Your task to perform on an android device: Clear the shopping cart on ebay.com. Add logitech g pro to the cart on ebay.com Image 0: 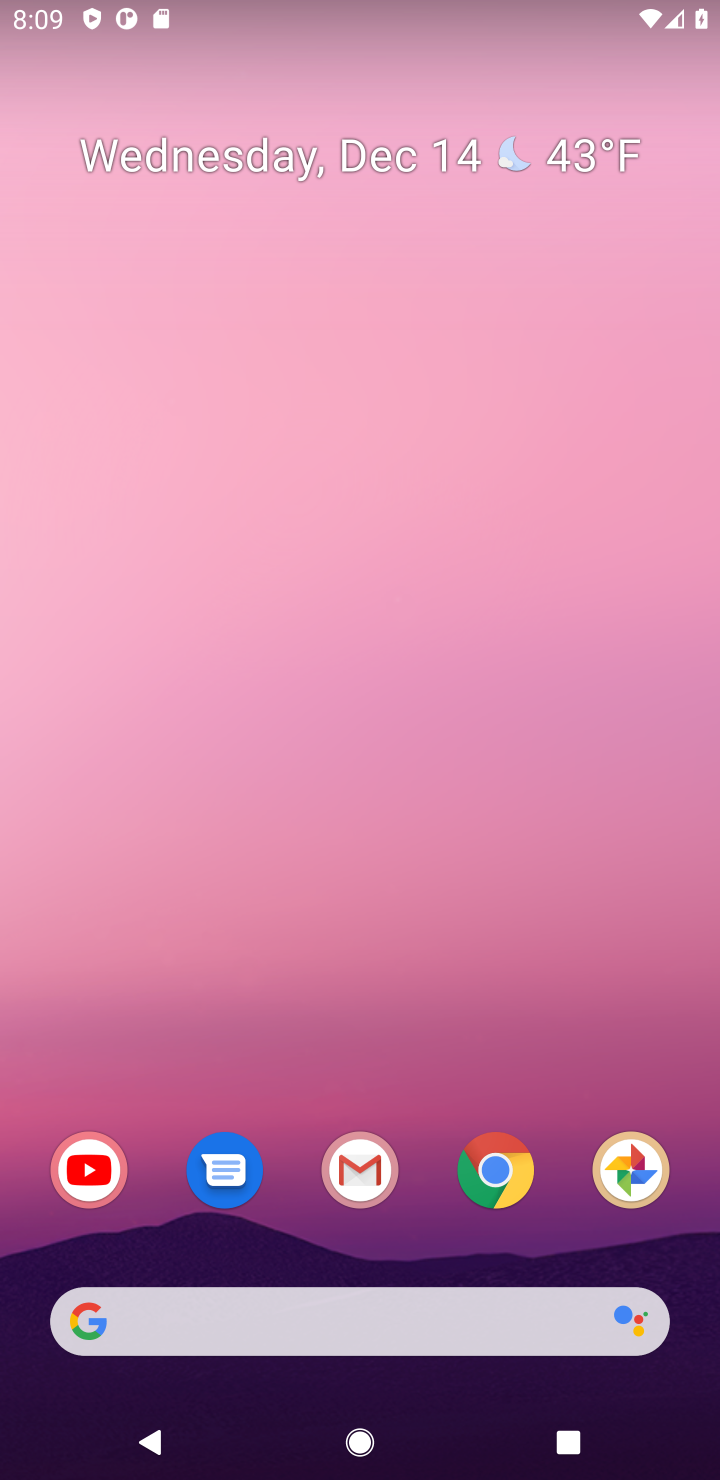
Step 0: task complete